Your task to perform on an android device: toggle translation in the chrome app Image 0: 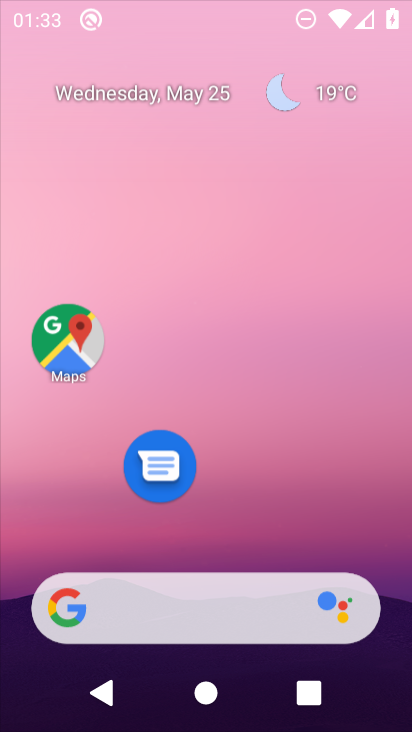
Step 0: click (274, 165)
Your task to perform on an android device: toggle translation in the chrome app Image 1: 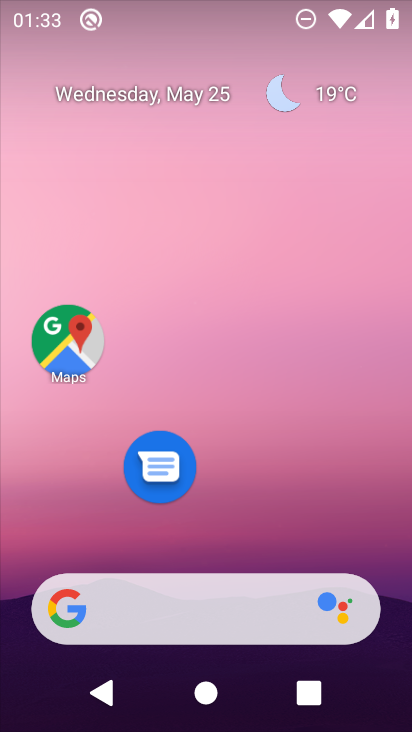
Step 1: drag from (201, 565) to (28, 446)
Your task to perform on an android device: toggle translation in the chrome app Image 2: 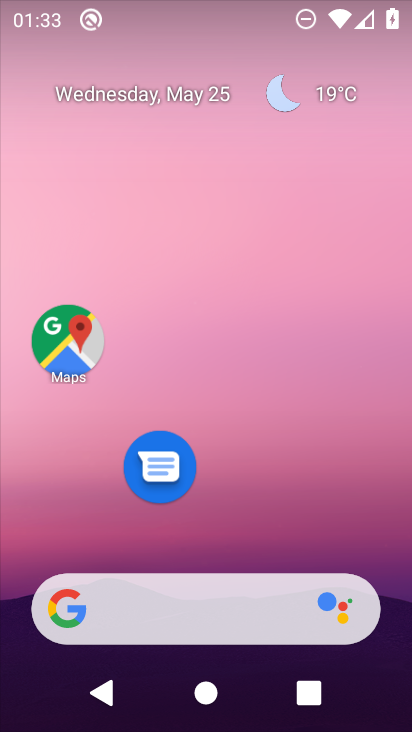
Step 2: drag from (206, 537) to (222, 91)
Your task to perform on an android device: toggle translation in the chrome app Image 3: 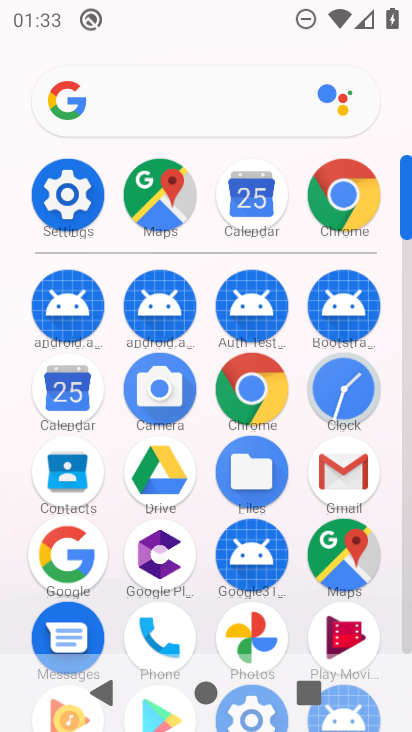
Step 3: click (248, 379)
Your task to perform on an android device: toggle translation in the chrome app Image 4: 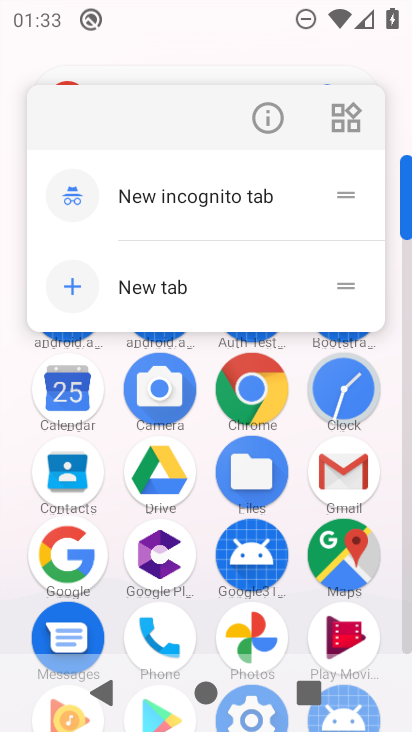
Step 4: click (276, 121)
Your task to perform on an android device: toggle translation in the chrome app Image 5: 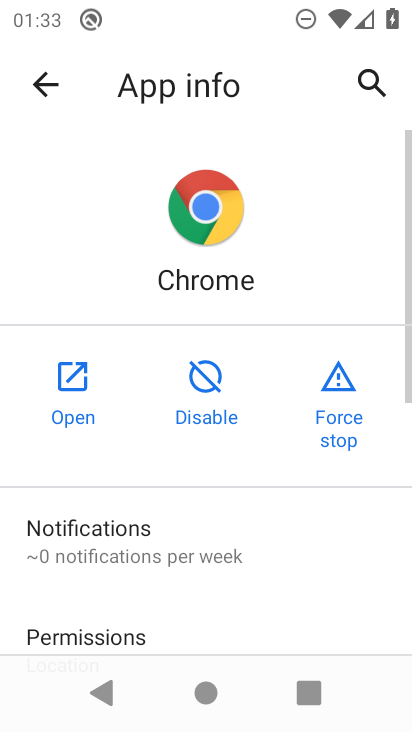
Step 5: click (68, 374)
Your task to perform on an android device: toggle translation in the chrome app Image 6: 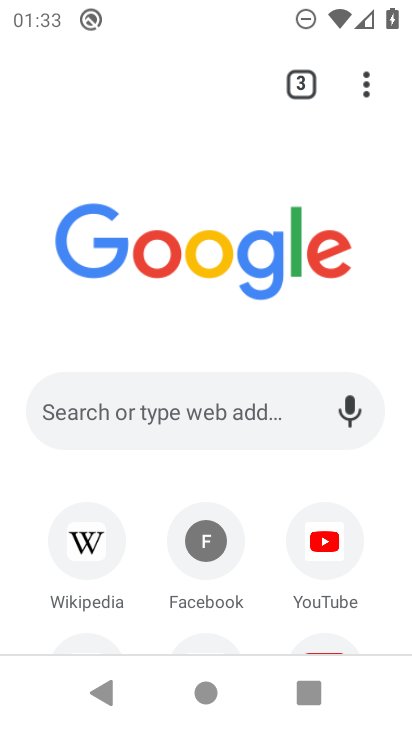
Step 6: drag from (239, 509) to (247, 306)
Your task to perform on an android device: toggle translation in the chrome app Image 7: 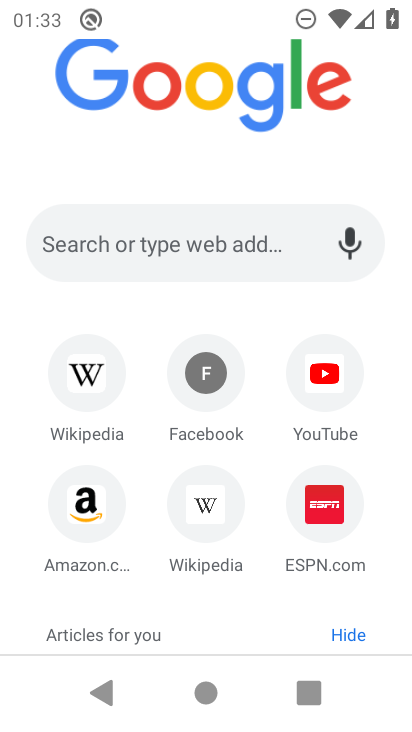
Step 7: drag from (226, 172) to (313, 635)
Your task to perform on an android device: toggle translation in the chrome app Image 8: 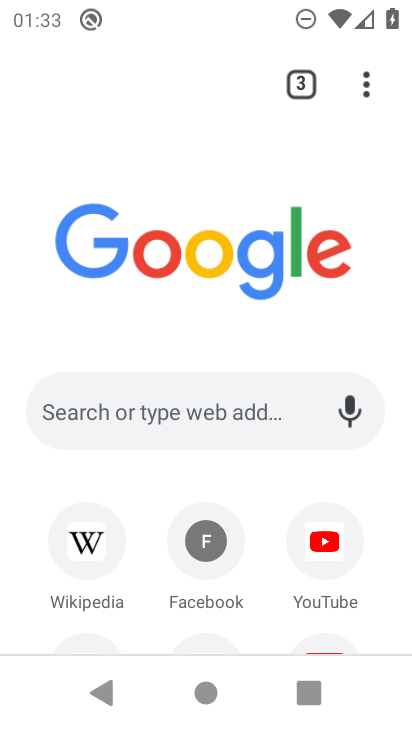
Step 8: click (371, 95)
Your task to perform on an android device: toggle translation in the chrome app Image 9: 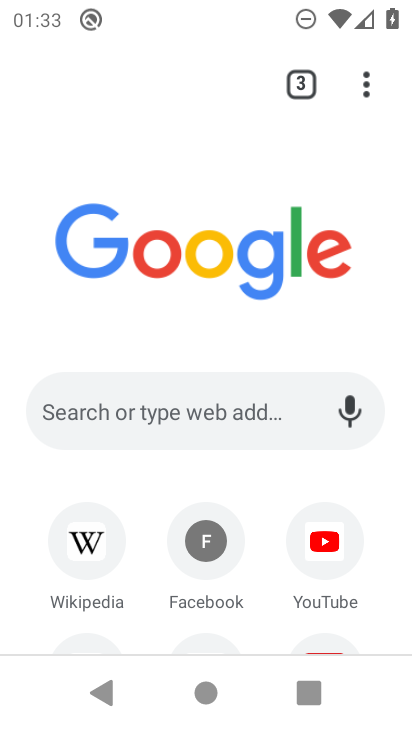
Step 9: click (365, 87)
Your task to perform on an android device: toggle translation in the chrome app Image 10: 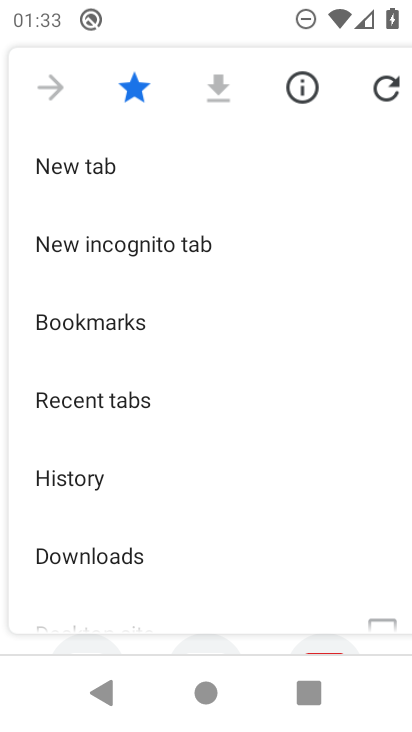
Step 10: drag from (208, 541) to (234, 145)
Your task to perform on an android device: toggle translation in the chrome app Image 11: 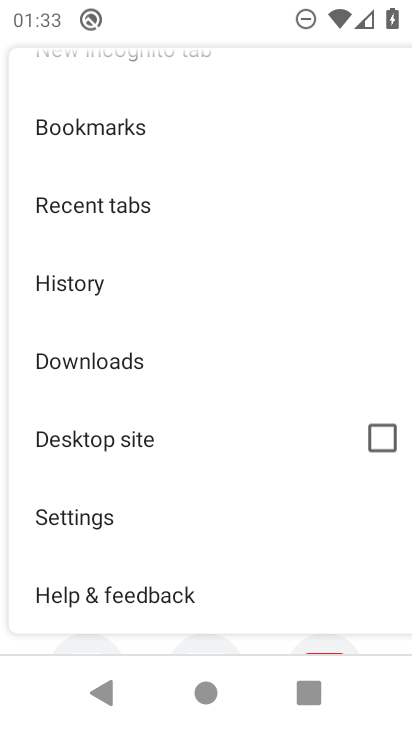
Step 11: click (128, 521)
Your task to perform on an android device: toggle translation in the chrome app Image 12: 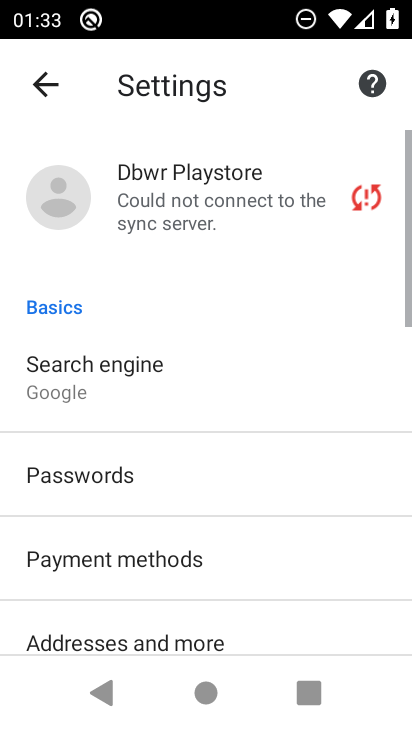
Step 12: drag from (186, 511) to (231, 132)
Your task to perform on an android device: toggle translation in the chrome app Image 13: 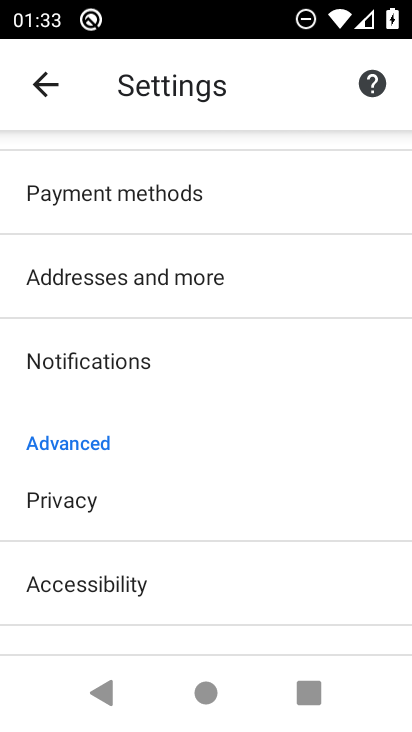
Step 13: drag from (168, 579) to (208, 146)
Your task to perform on an android device: toggle translation in the chrome app Image 14: 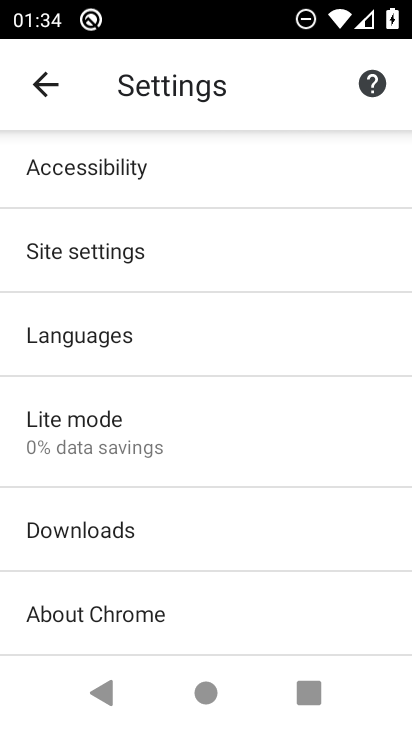
Step 14: drag from (228, 594) to (270, 253)
Your task to perform on an android device: toggle translation in the chrome app Image 15: 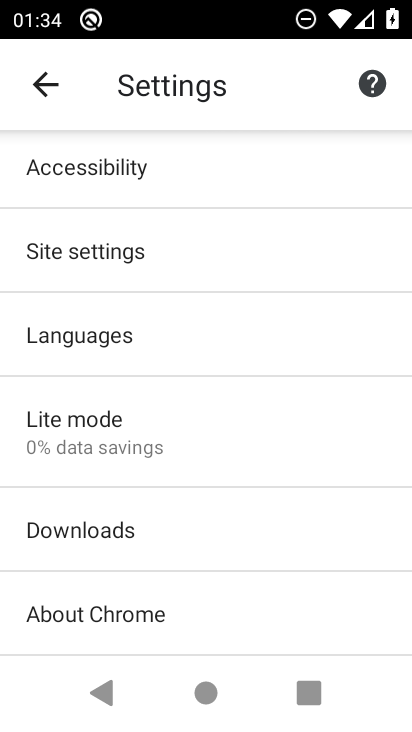
Step 15: drag from (175, 535) to (230, 184)
Your task to perform on an android device: toggle translation in the chrome app Image 16: 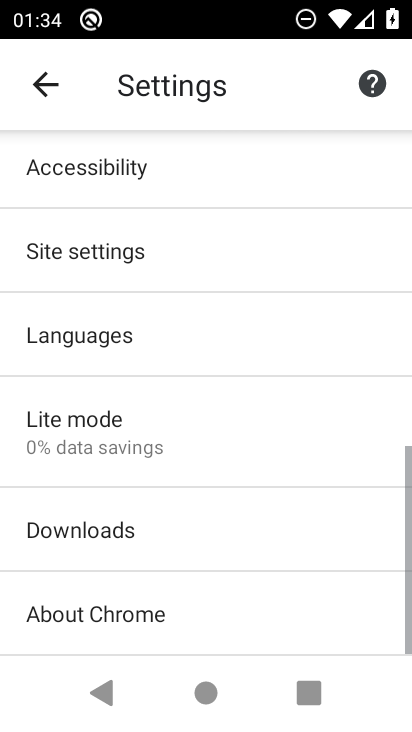
Step 16: click (115, 328)
Your task to perform on an android device: toggle translation in the chrome app Image 17: 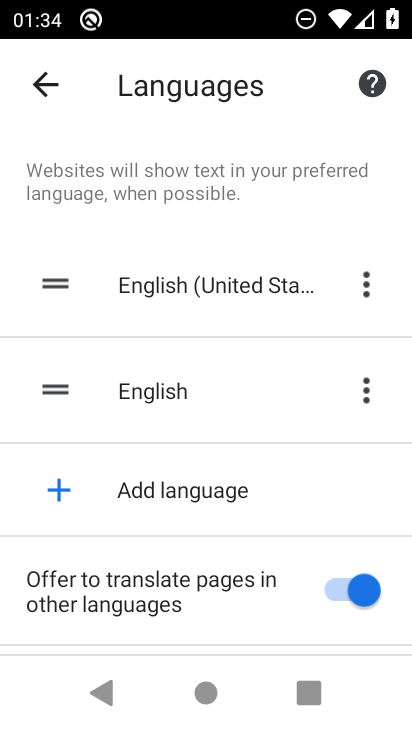
Step 17: click (349, 581)
Your task to perform on an android device: toggle translation in the chrome app Image 18: 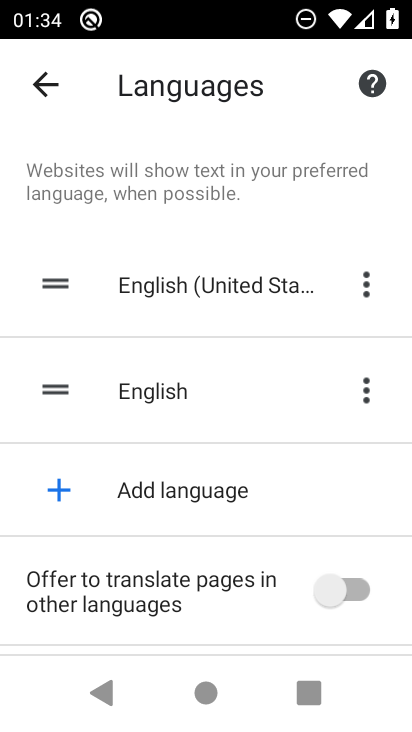
Step 18: task complete